Your task to perform on an android device: Open CNN.com Image 0: 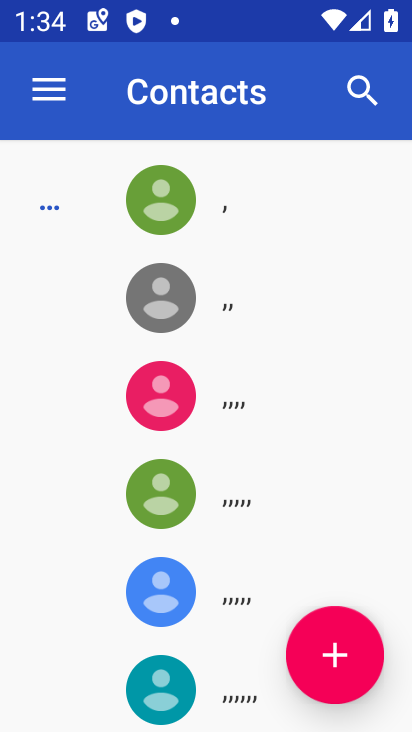
Step 0: press home button
Your task to perform on an android device: Open CNN.com Image 1: 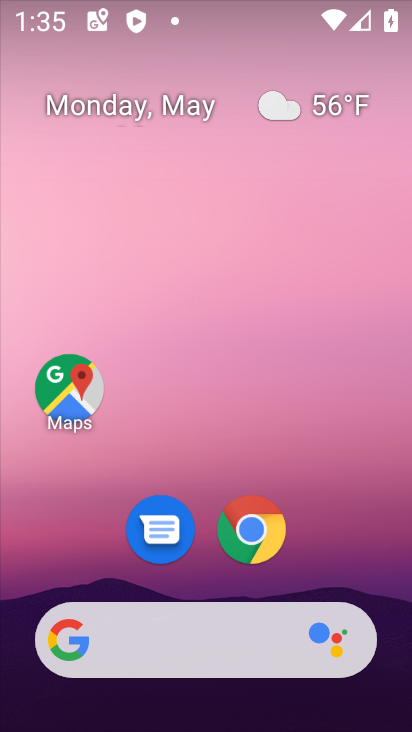
Step 1: click (238, 538)
Your task to perform on an android device: Open CNN.com Image 2: 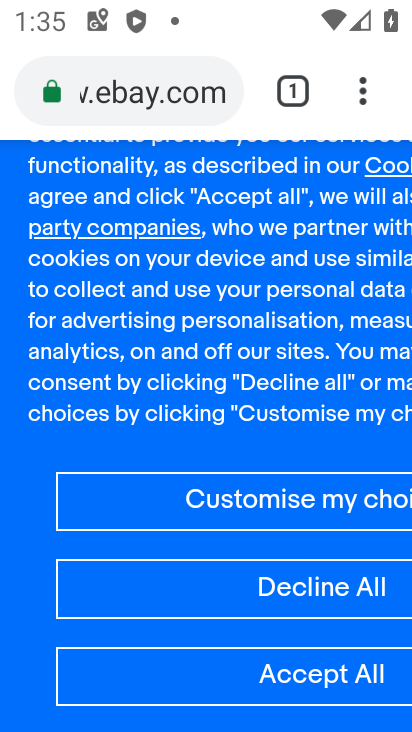
Step 2: click (150, 107)
Your task to perform on an android device: Open CNN.com Image 3: 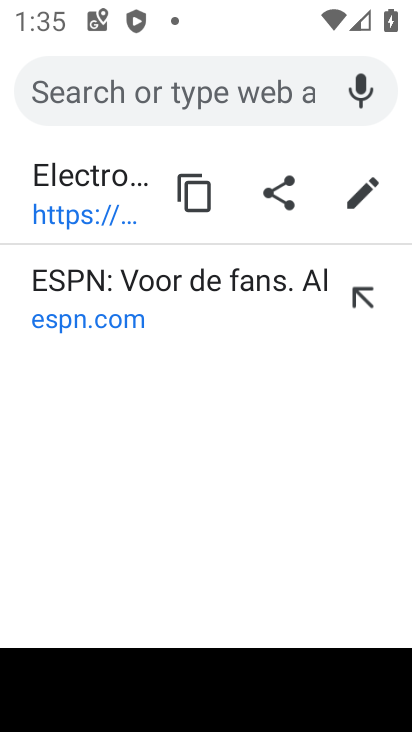
Step 3: type "CNN.com"
Your task to perform on an android device: Open CNN.com Image 4: 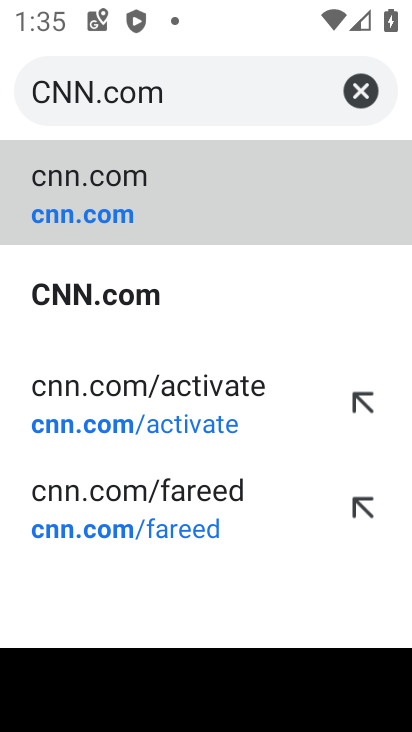
Step 4: click (124, 218)
Your task to perform on an android device: Open CNN.com Image 5: 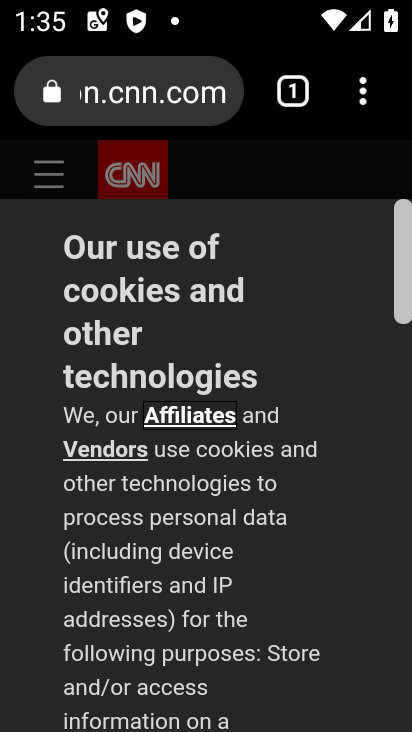
Step 5: task complete